Your task to perform on an android device: snooze an email in the gmail app Image 0: 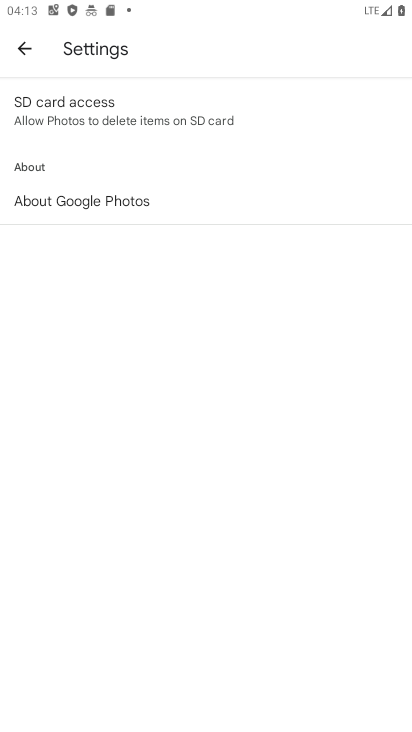
Step 0: press home button
Your task to perform on an android device: snooze an email in the gmail app Image 1: 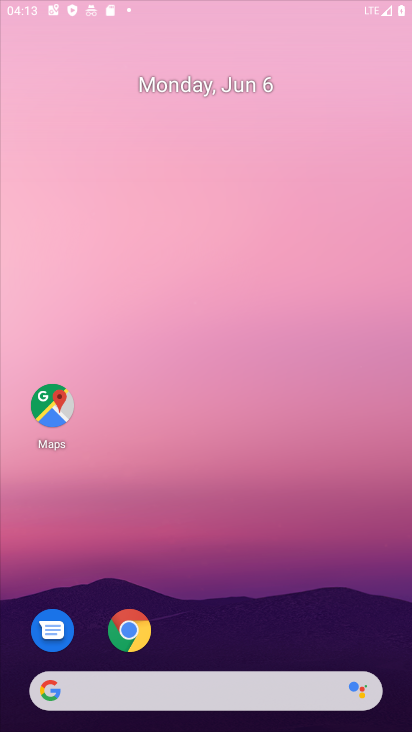
Step 1: drag from (359, 678) to (285, 142)
Your task to perform on an android device: snooze an email in the gmail app Image 2: 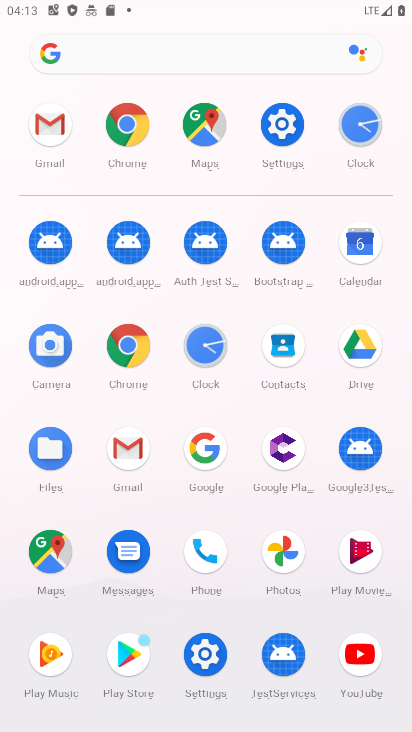
Step 2: click (62, 124)
Your task to perform on an android device: snooze an email in the gmail app Image 3: 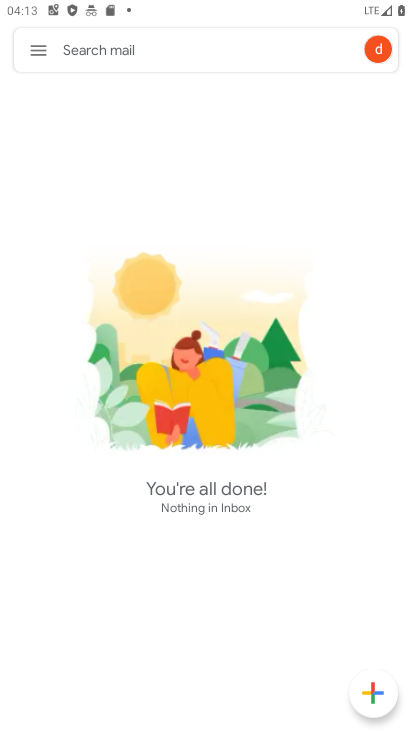
Step 3: task complete